Your task to perform on an android device: Go to privacy settings Image 0: 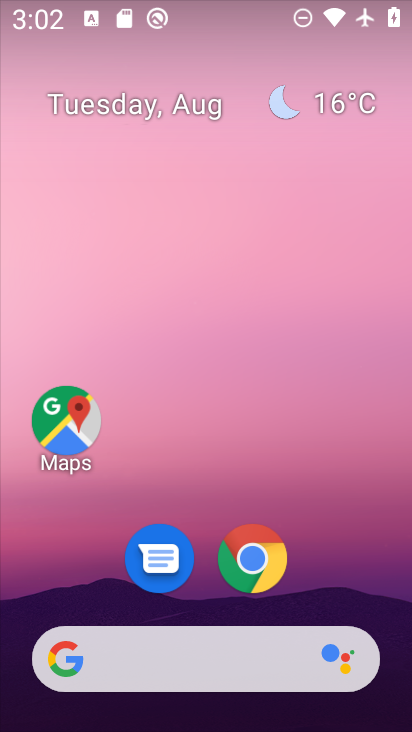
Step 0: drag from (206, 497) to (197, 28)
Your task to perform on an android device: Go to privacy settings Image 1: 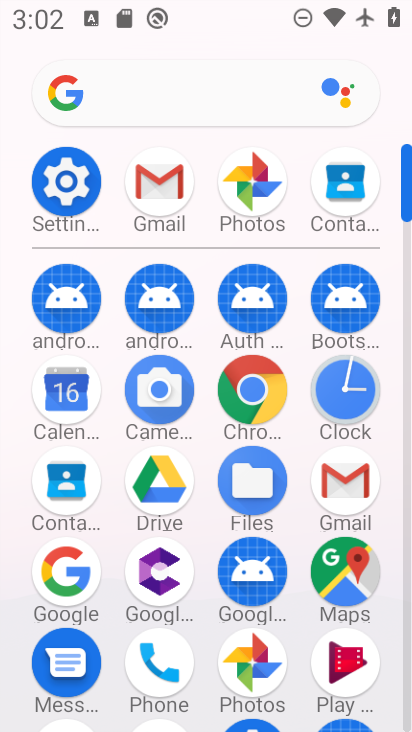
Step 1: click (61, 186)
Your task to perform on an android device: Go to privacy settings Image 2: 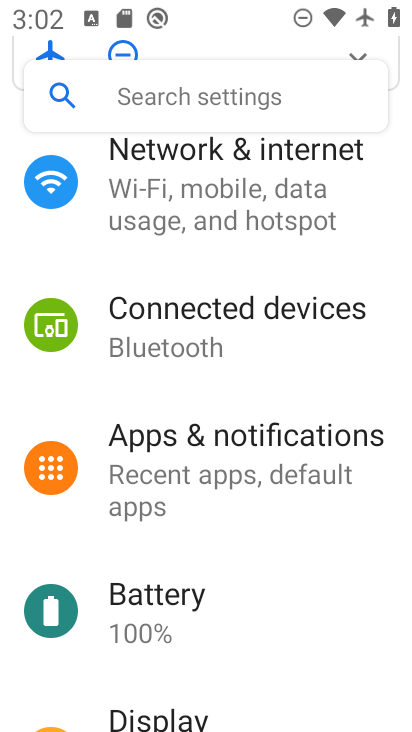
Step 2: drag from (231, 661) to (231, 278)
Your task to perform on an android device: Go to privacy settings Image 3: 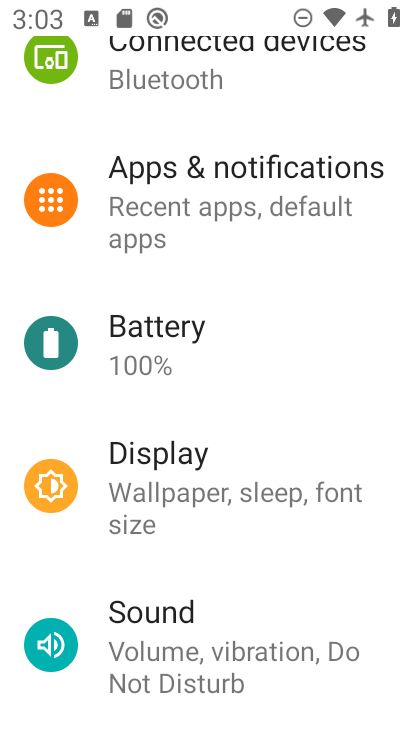
Step 3: drag from (210, 661) to (230, 334)
Your task to perform on an android device: Go to privacy settings Image 4: 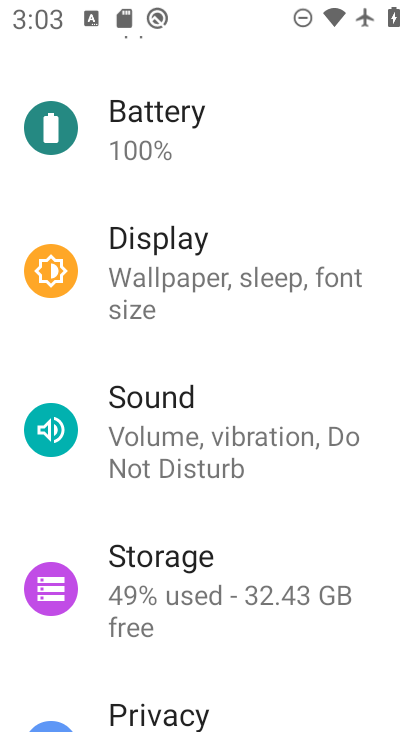
Step 4: drag from (214, 675) to (243, 391)
Your task to perform on an android device: Go to privacy settings Image 5: 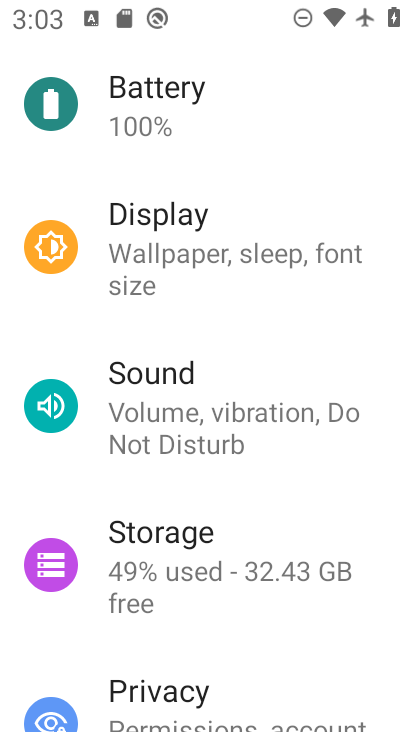
Step 5: click (175, 695)
Your task to perform on an android device: Go to privacy settings Image 6: 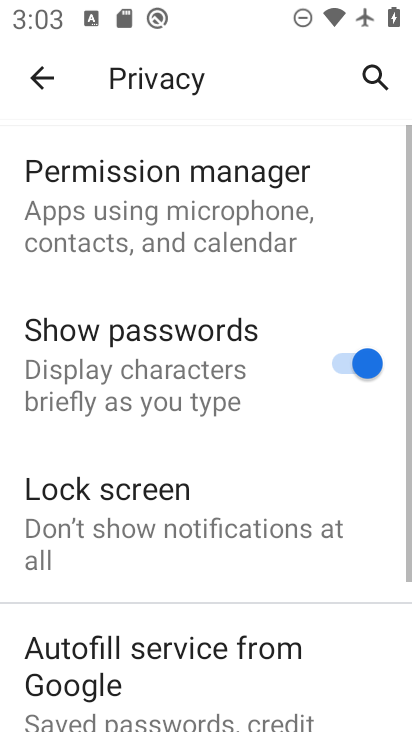
Step 6: task complete